Your task to perform on an android device: turn vacation reply on in the gmail app Image 0: 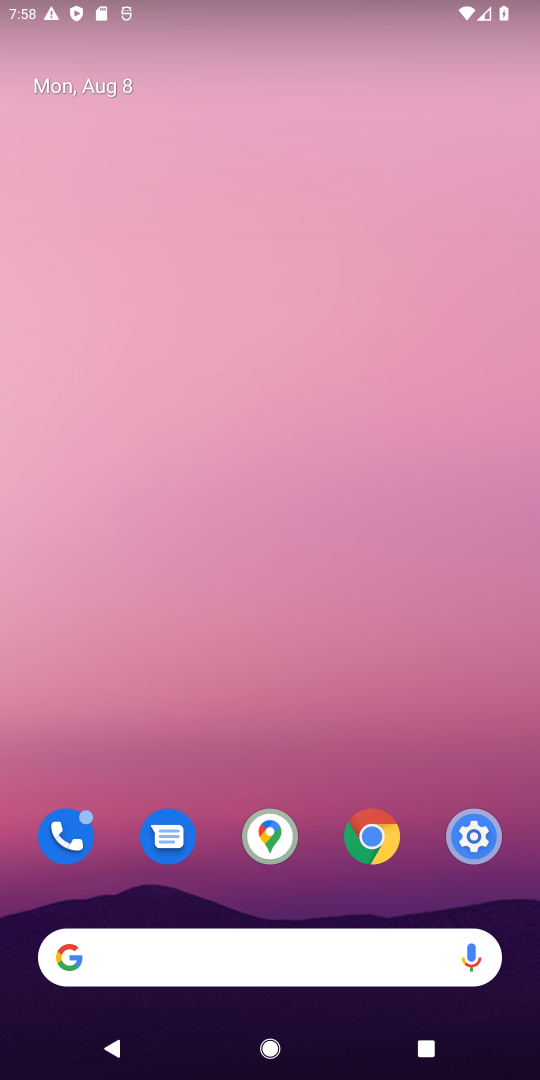
Step 0: drag from (397, 769) to (307, 143)
Your task to perform on an android device: turn vacation reply on in the gmail app Image 1: 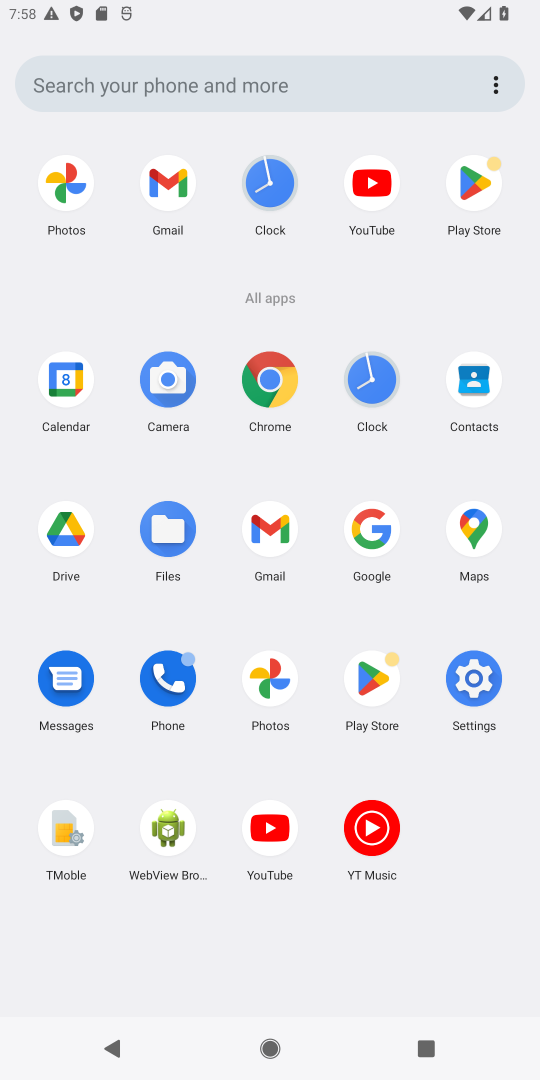
Step 1: click (291, 540)
Your task to perform on an android device: turn vacation reply on in the gmail app Image 2: 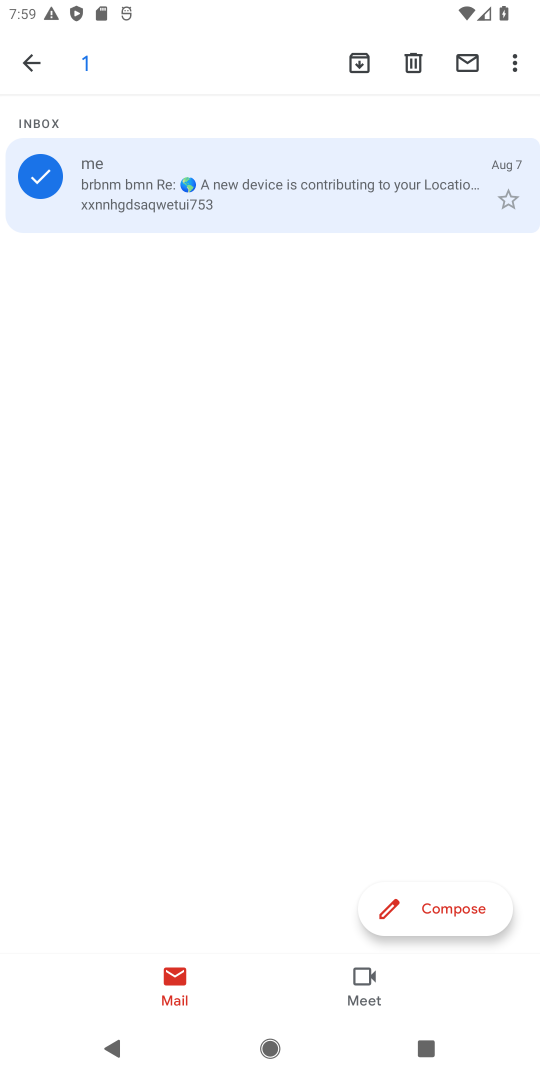
Step 2: click (41, 71)
Your task to perform on an android device: turn vacation reply on in the gmail app Image 3: 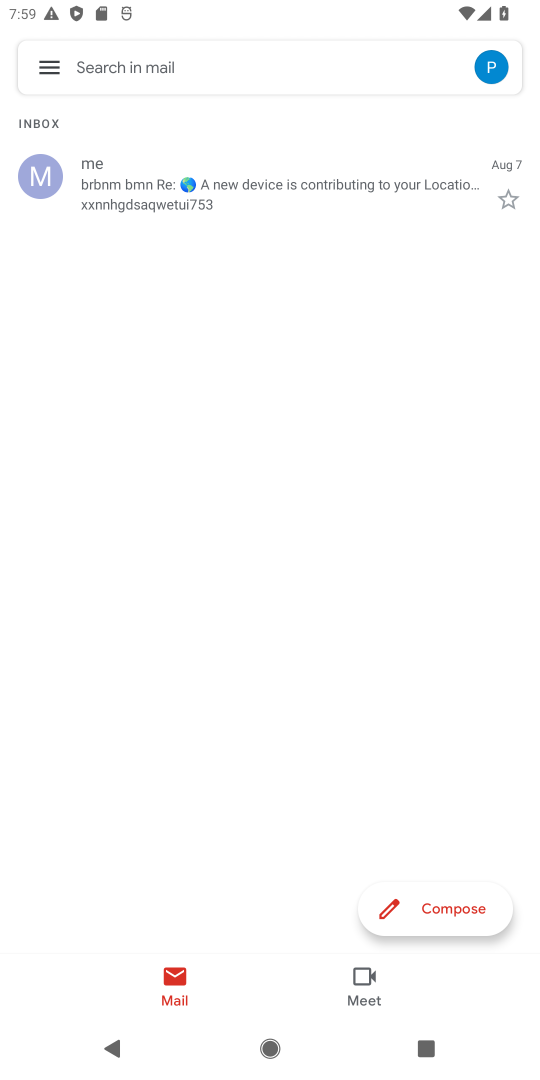
Step 3: click (45, 74)
Your task to perform on an android device: turn vacation reply on in the gmail app Image 4: 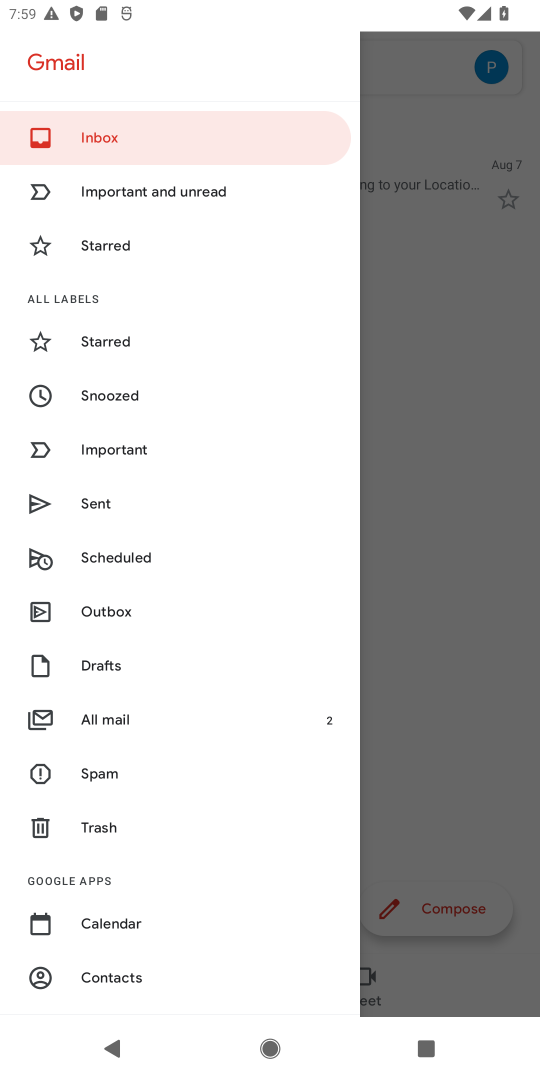
Step 4: drag from (179, 907) to (156, 210)
Your task to perform on an android device: turn vacation reply on in the gmail app Image 5: 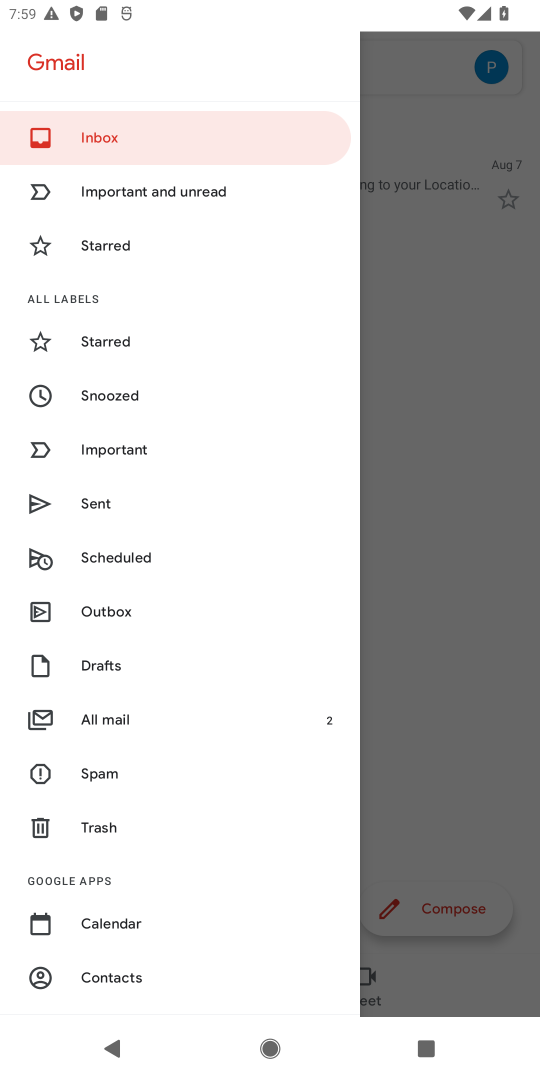
Step 5: drag from (183, 962) to (188, 379)
Your task to perform on an android device: turn vacation reply on in the gmail app Image 6: 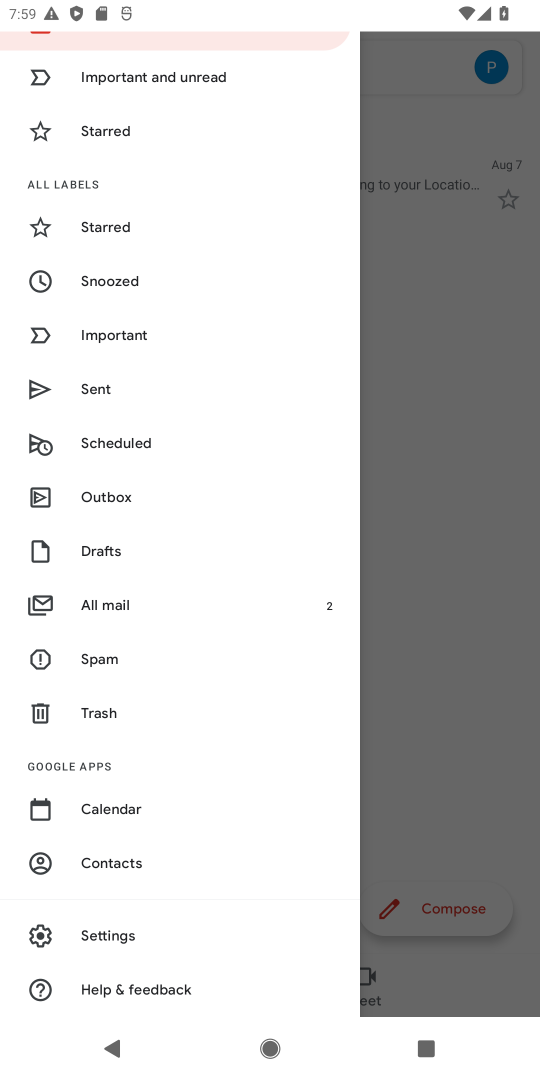
Step 6: drag from (188, 945) to (184, 460)
Your task to perform on an android device: turn vacation reply on in the gmail app Image 7: 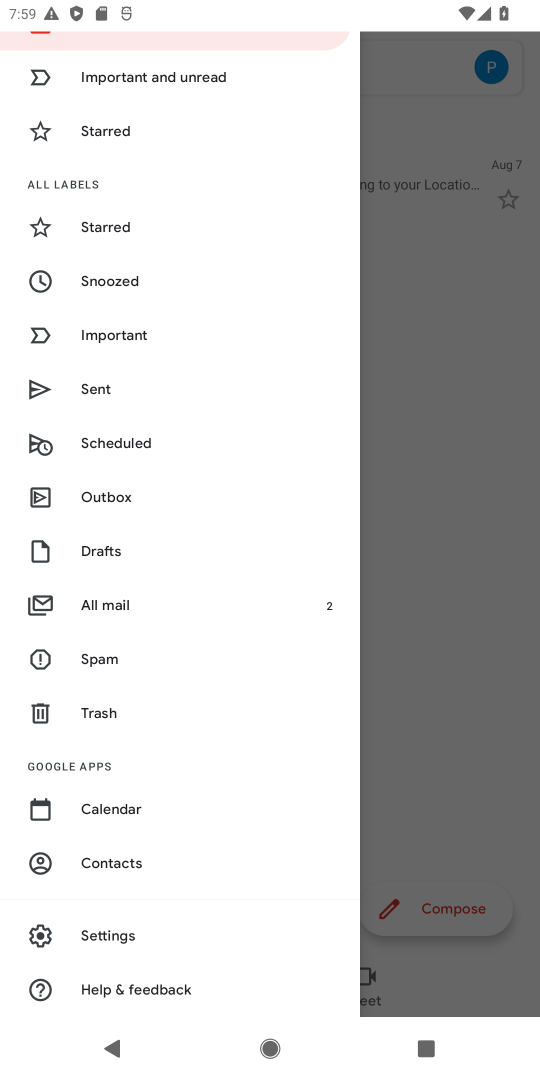
Step 7: click (144, 927)
Your task to perform on an android device: turn vacation reply on in the gmail app Image 8: 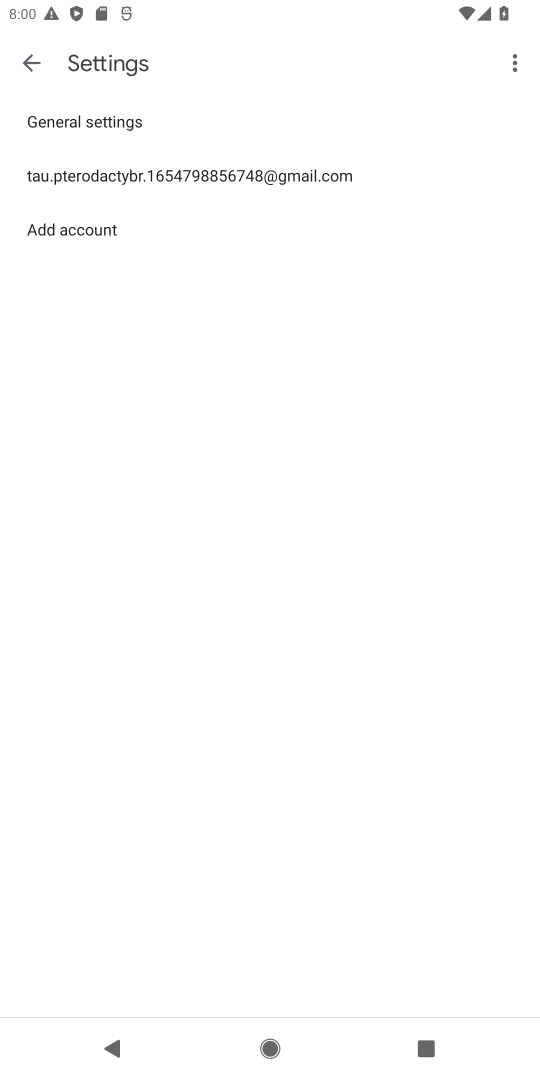
Step 8: click (231, 180)
Your task to perform on an android device: turn vacation reply on in the gmail app Image 9: 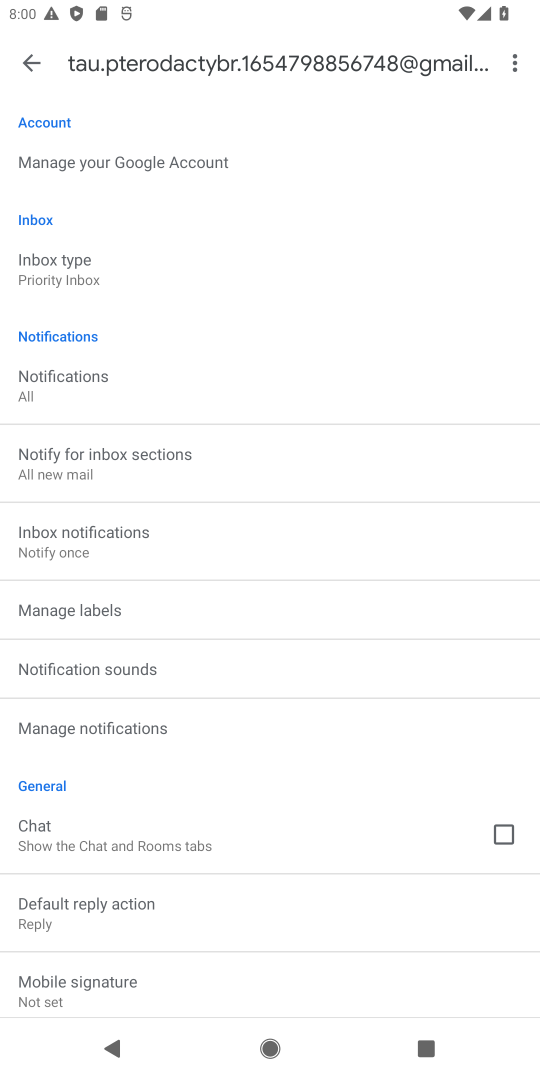
Step 9: drag from (227, 736) to (190, 419)
Your task to perform on an android device: turn vacation reply on in the gmail app Image 10: 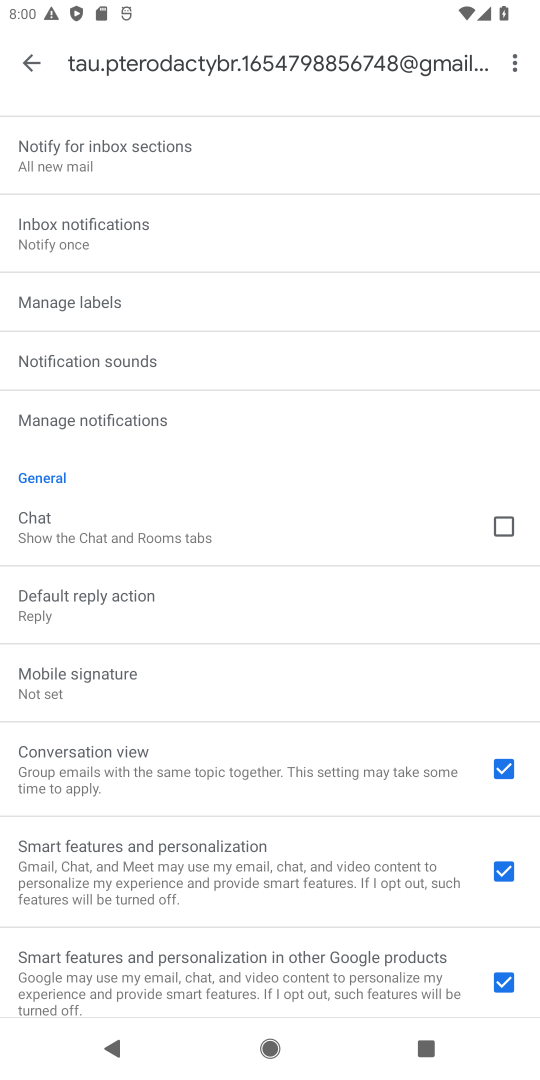
Step 10: drag from (204, 931) to (96, 294)
Your task to perform on an android device: turn vacation reply on in the gmail app Image 11: 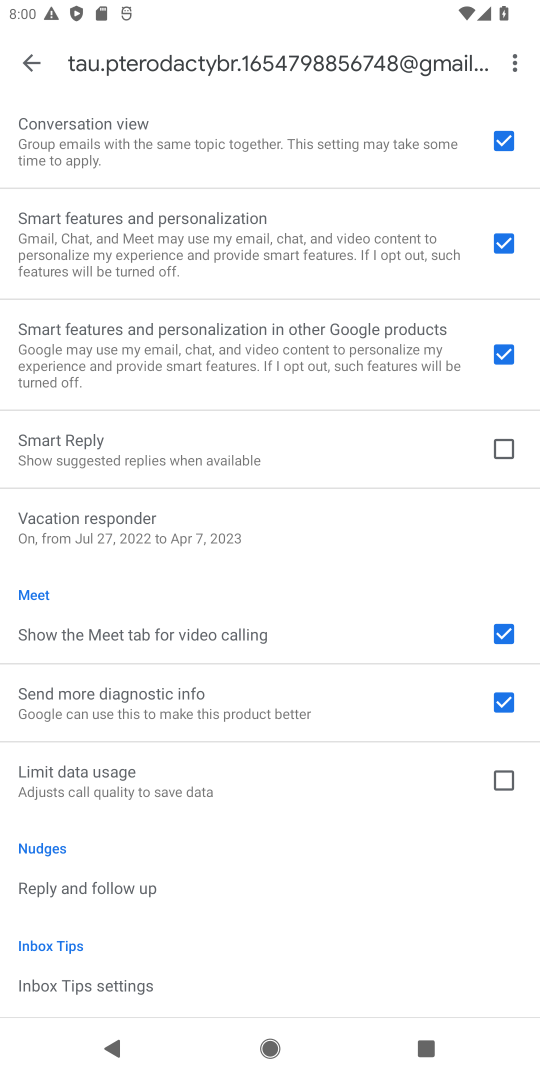
Step 11: click (133, 496)
Your task to perform on an android device: turn vacation reply on in the gmail app Image 12: 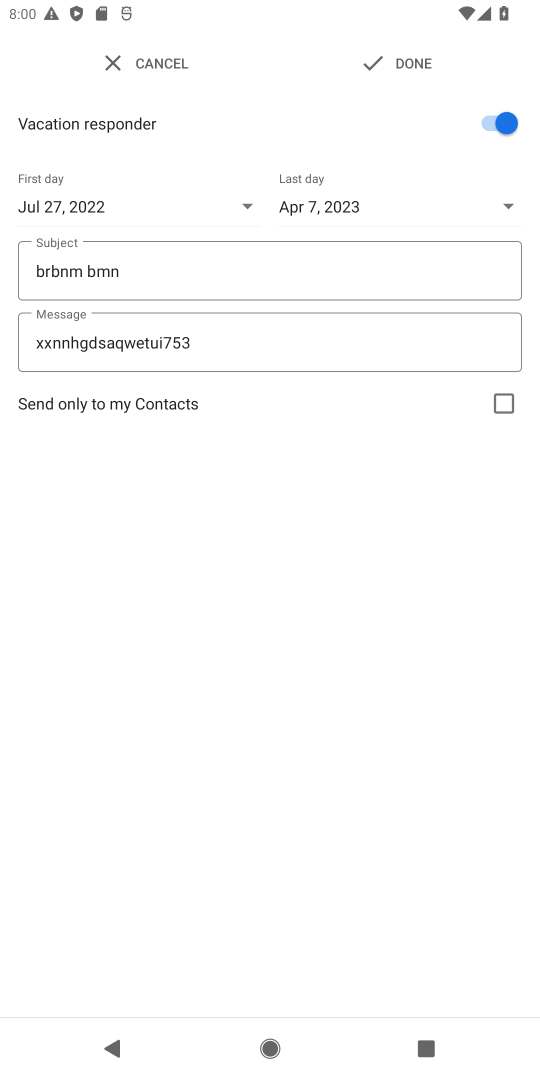
Step 12: click (364, 294)
Your task to perform on an android device: turn vacation reply on in the gmail app Image 13: 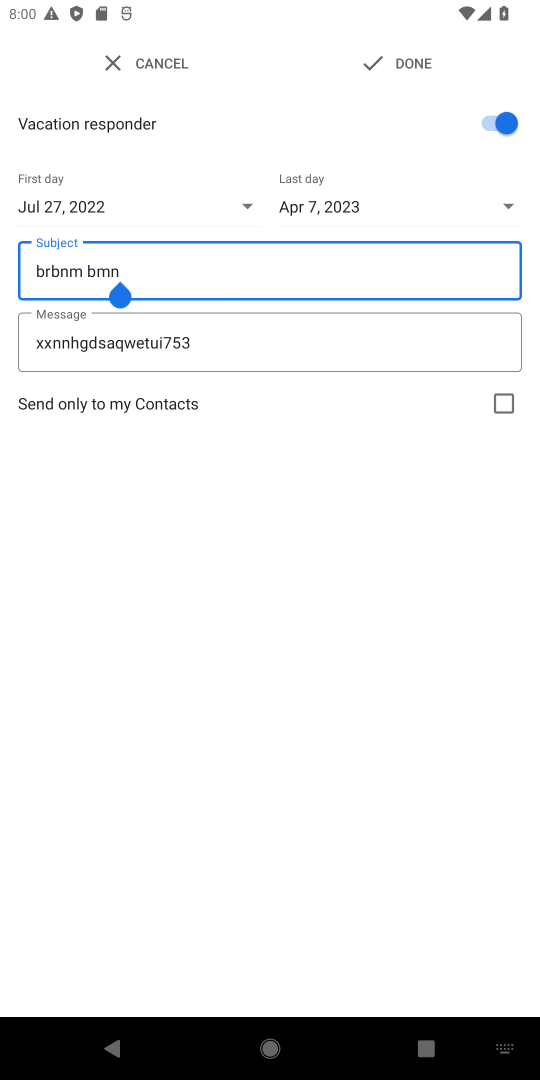
Step 13: type "njknkj"
Your task to perform on an android device: turn vacation reply on in the gmail app Image 14: 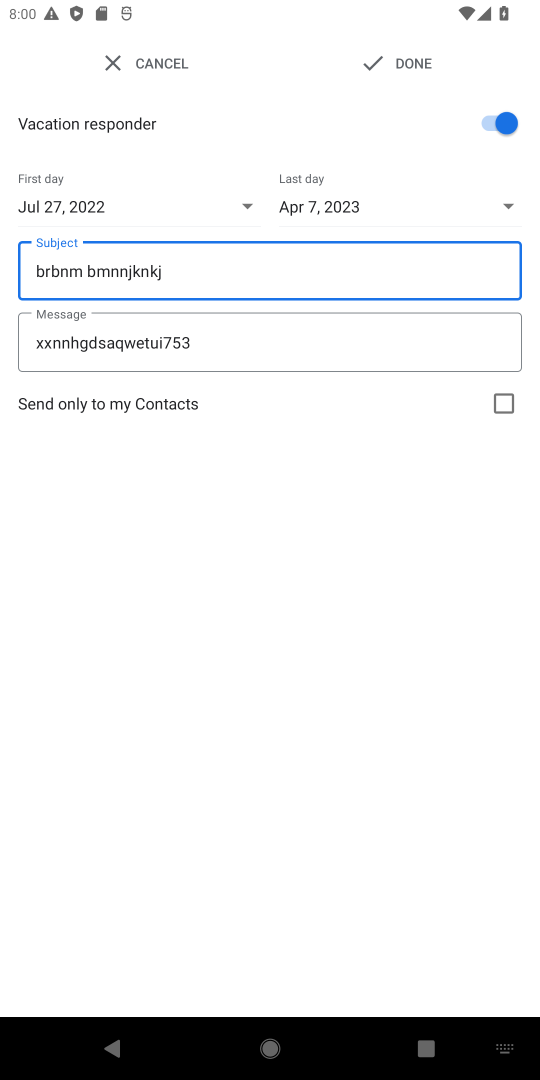
Step 14: click (394, 80)
Your task to perform on an android device: turn vacation reply on in the gmail app Image 15: 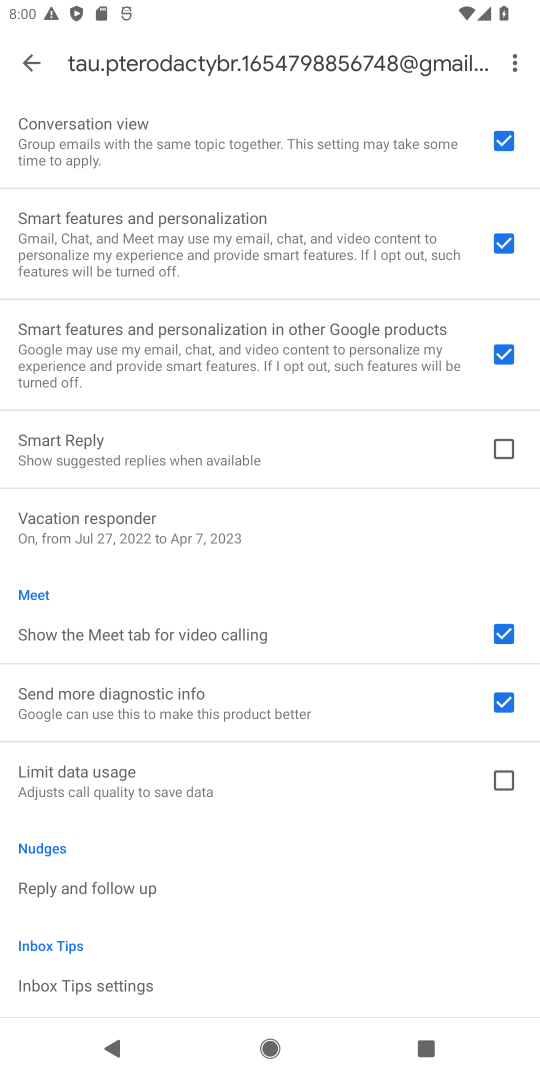
Step 15: task complete